Your task to perform on an android device: see sites visited before in the chrome app Image 0: 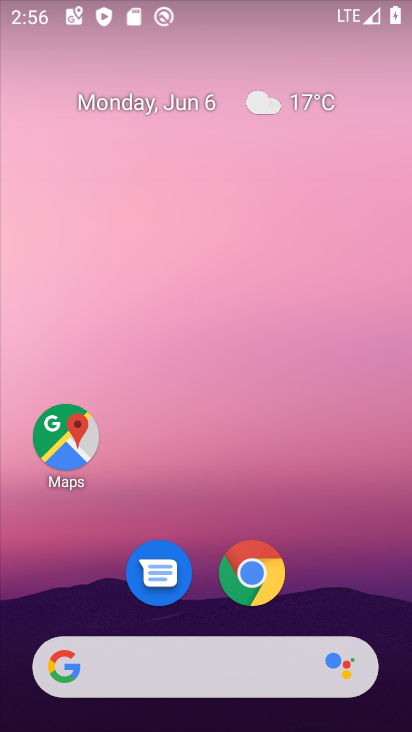
Step 0: drag from (324, 581) to (326, 116)
Your task to perform on an android device: see sites visited before in the chrome app Image 1: 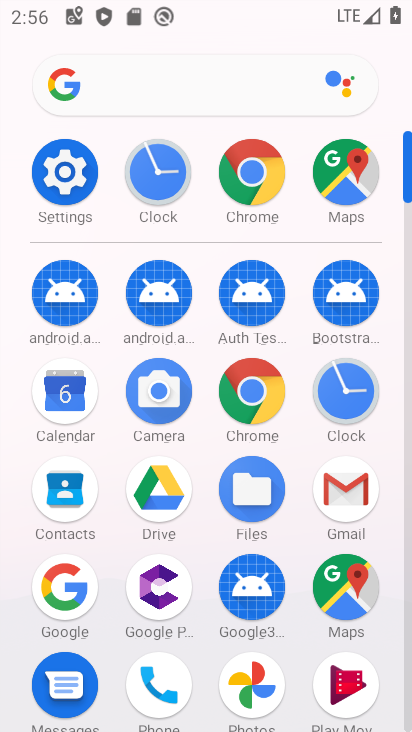
Step 1: click (253, 391)
Your task to perform on an android device: see sites visited before in the chrome app Image 2: 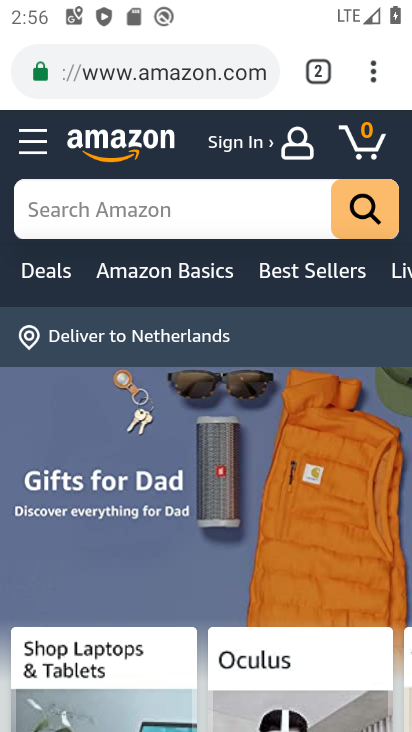
Step 2: click (372, 74)
Your task to perform on an android device: see sites visited before in the chrome app Image 3: 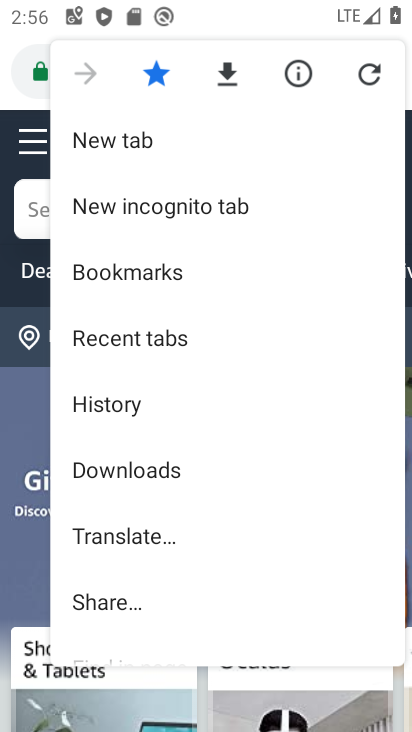
Step 3: click (137, 410)
Your task to perform on an android device: see sites visited before in the chrome app Image 4: 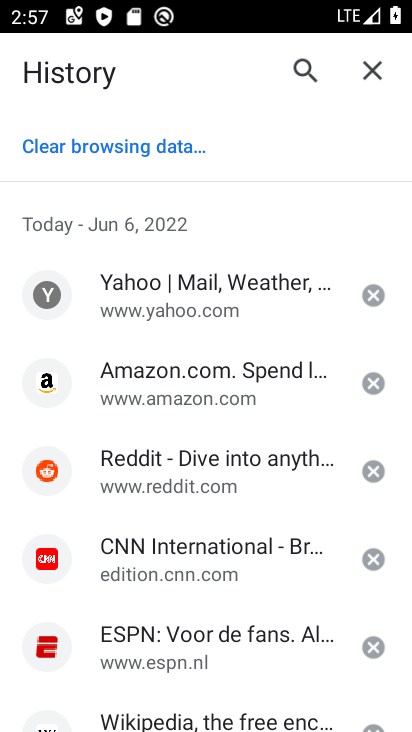
Step 4: task complete